Your task to perform on an android device: Go to CNN.com Image 0: 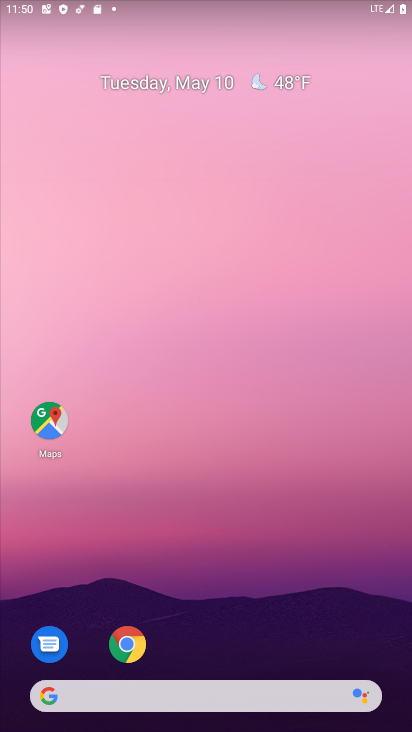
Step 0: click (135, 647)
Your task to perform on an android device: Go to CNN.com Image 1: 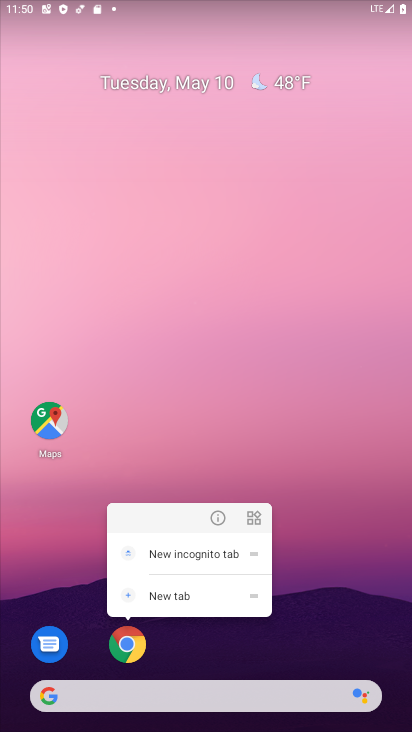
Step 1: click (140, 640)
Your task to perform on an android device: Go to CNN.com Image 2: 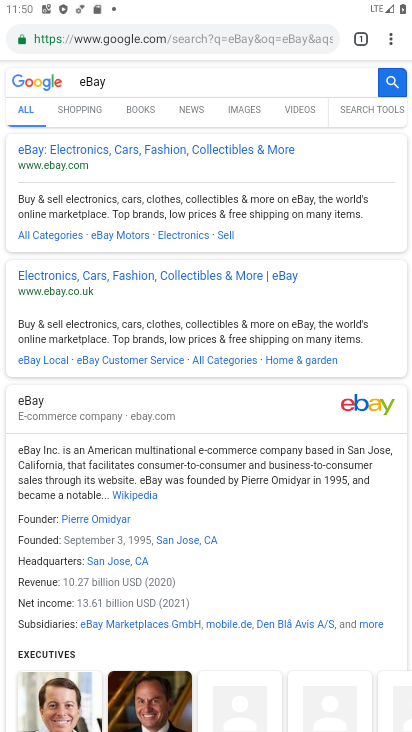
Step 2: click (159, 35)
Your task to perform on an android device: Go to CNN.com Image 3: 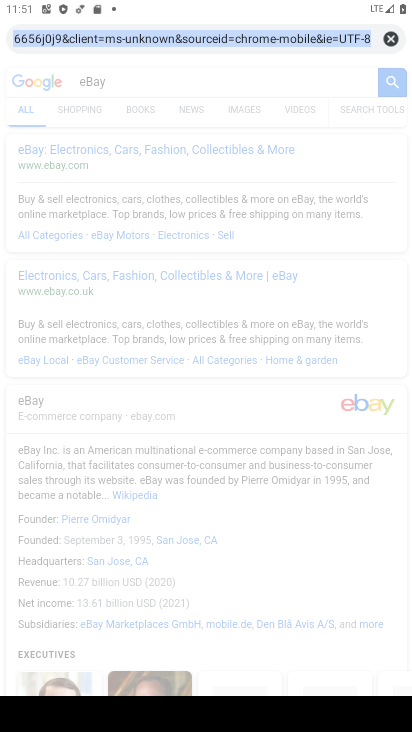
Step 3: type "CNN.com"
Your task to perform on an android device: Go to CNN.com Image 4: 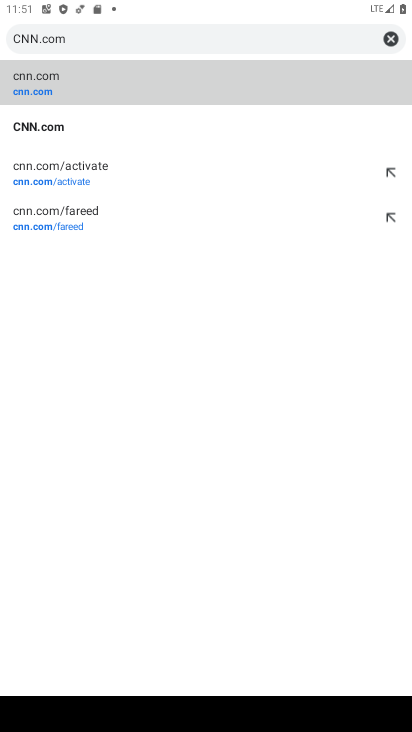
Step 4: click (68, 86)
Your task to perform on an android device: Go to CNN.com Image 5: 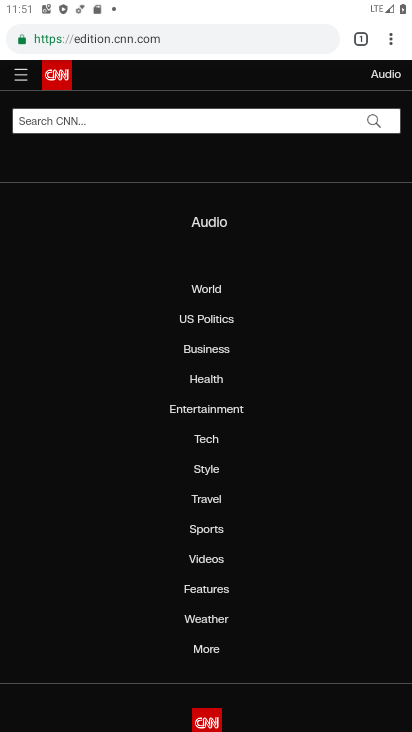
Step 5: task complete